Your task to perform on an android device: toggle improve location accuracy Image 0: 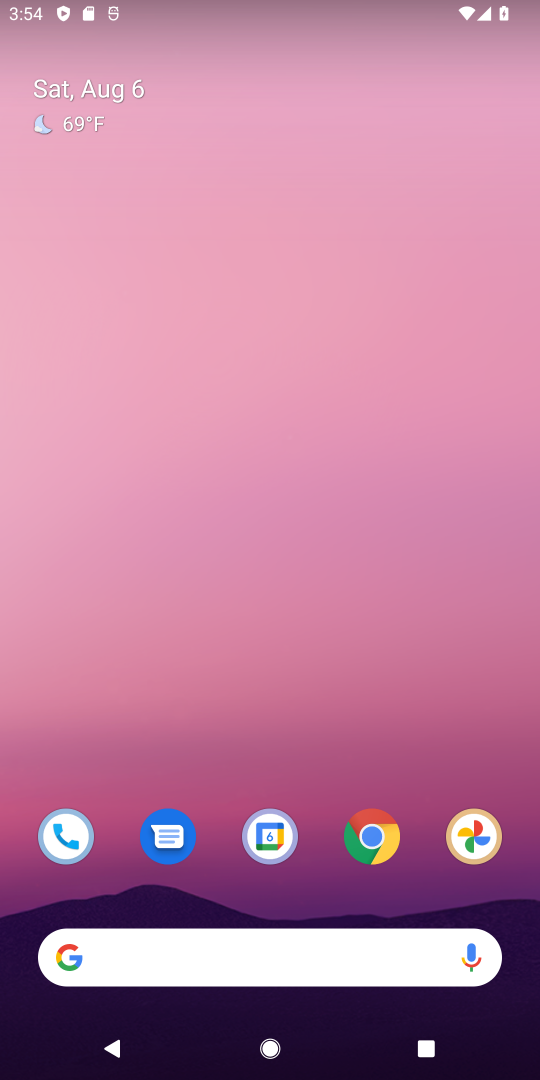
Step 0: drag from (328, 911) to (490, 2)
Your task to perform on an android device: toggle improve location accuracy Image 1: 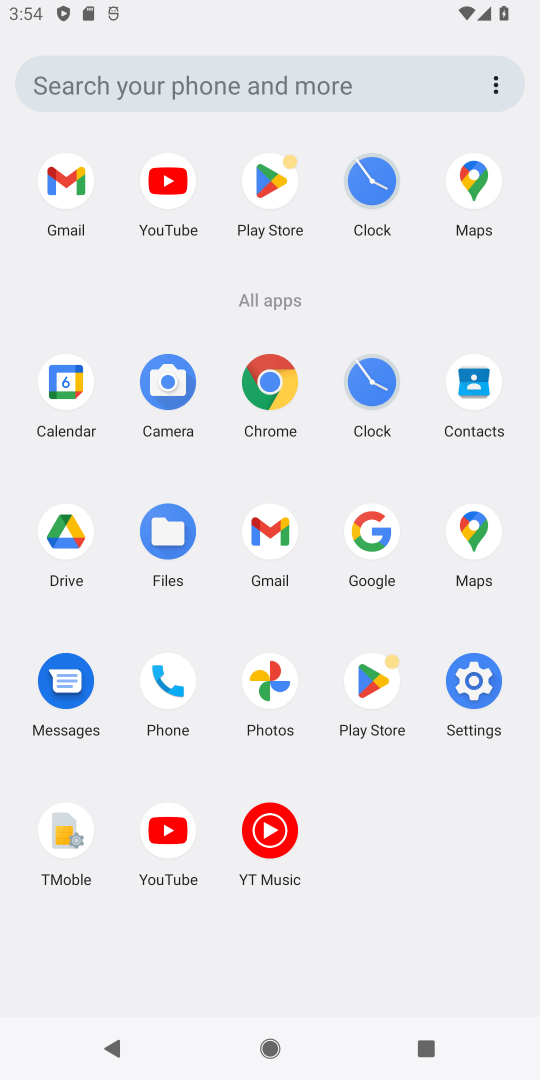
Step 1: click (471, 690)
Your task to perform on an android device: toggle improve location accuracy Image 2: 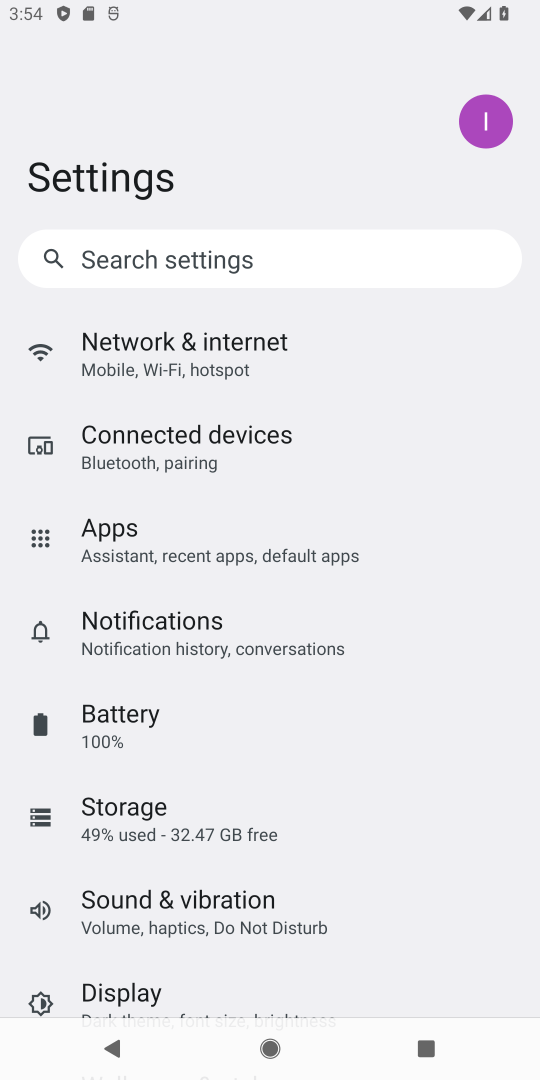
Step 2: drag from (119, 893) to (102, 221)
Your task to perform on an android device: toggle improve location accuracy Image 3: 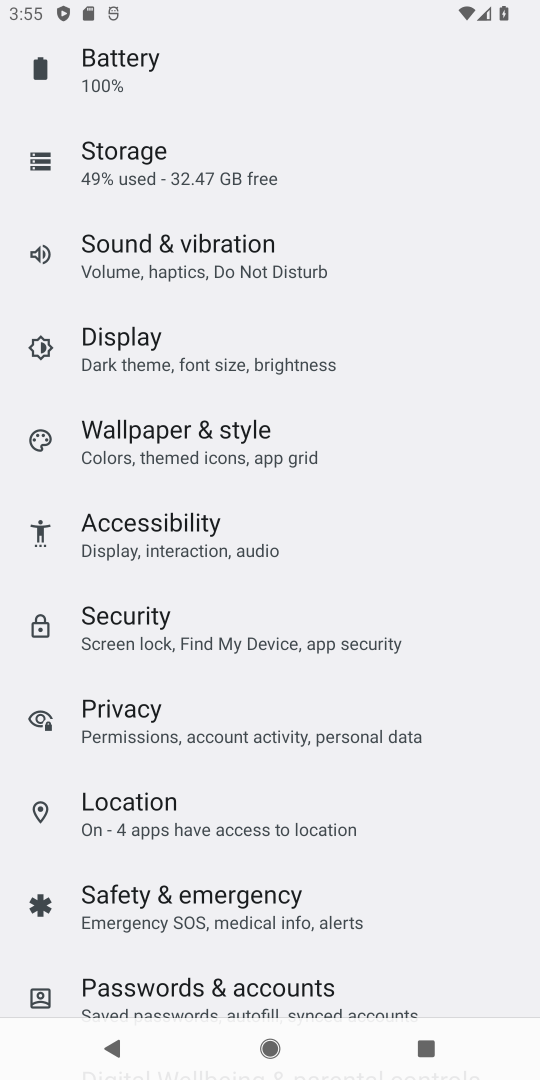
Step 3: click (169, 787)
Your task to perform on an android device: toggle improve location accuracy Image 4: 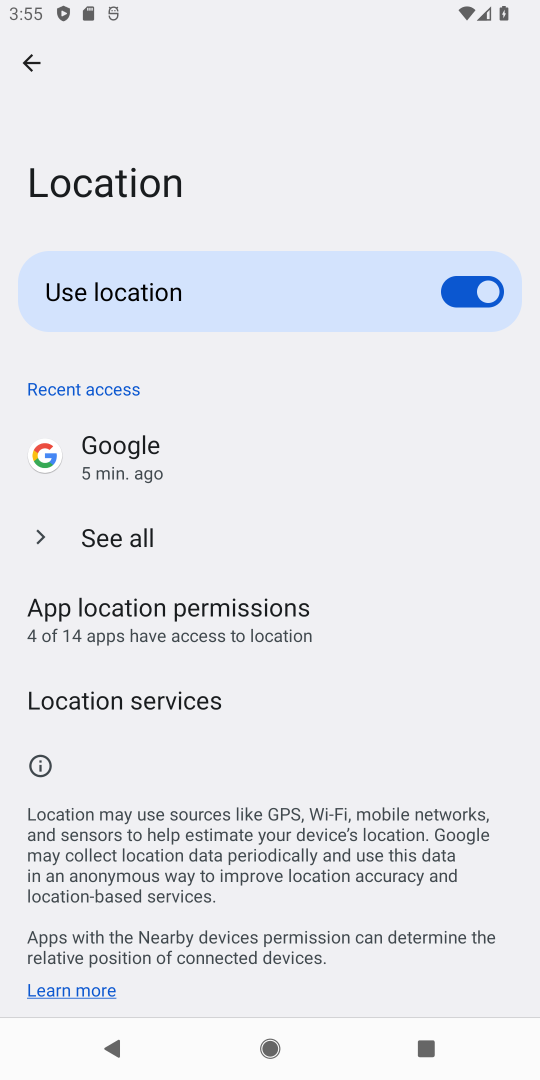
Step 4: click (128, 672)
Your task to perform on an android device: toggle improve location accuracy Image 5: 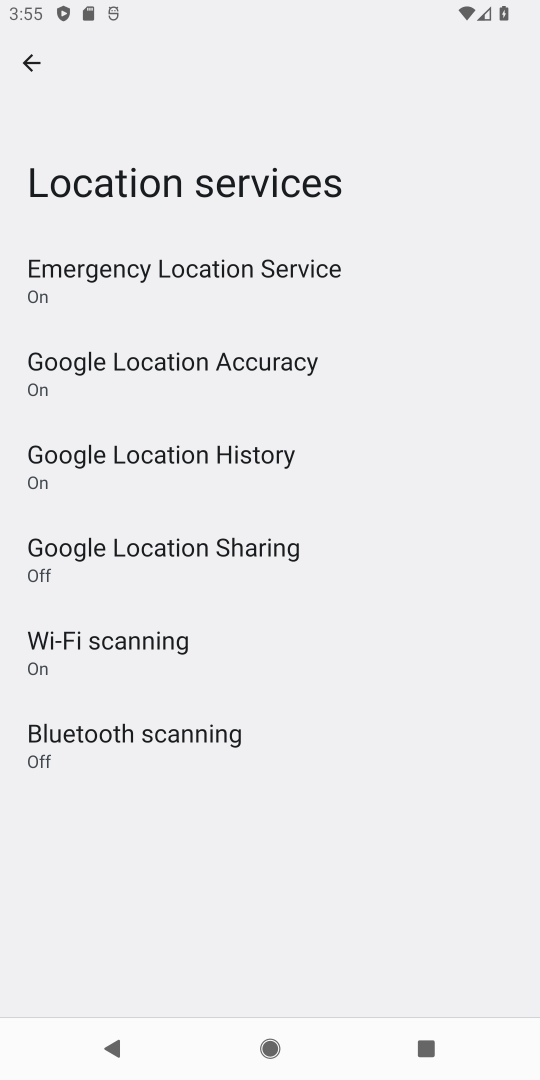
Step 5: click (240, 369)
Your task to perform on an android device: toggle improve location accuracy Image 6: 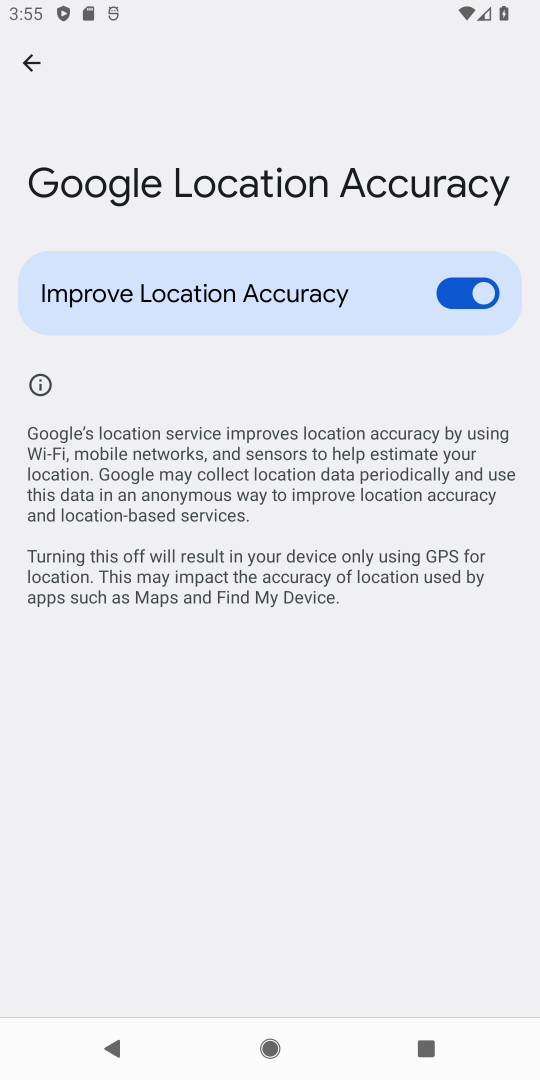
Step 6: click (440, 309)
Your task to perform on an android device: toggle improve location accuracy Image 7: 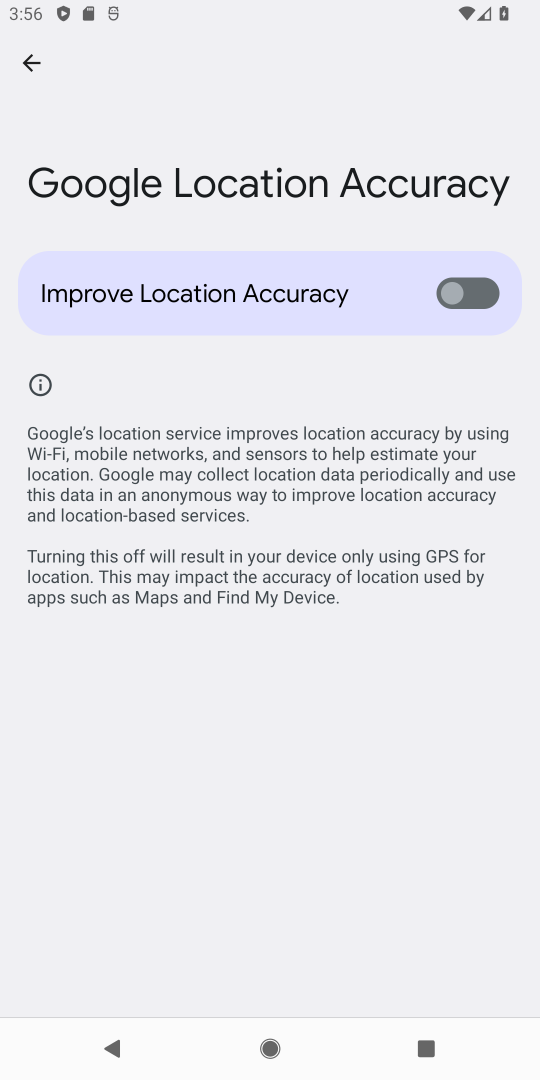
Step 7: task complete